Your task to perform on an android device: Open calendar and show me the third week of next month Image 0: 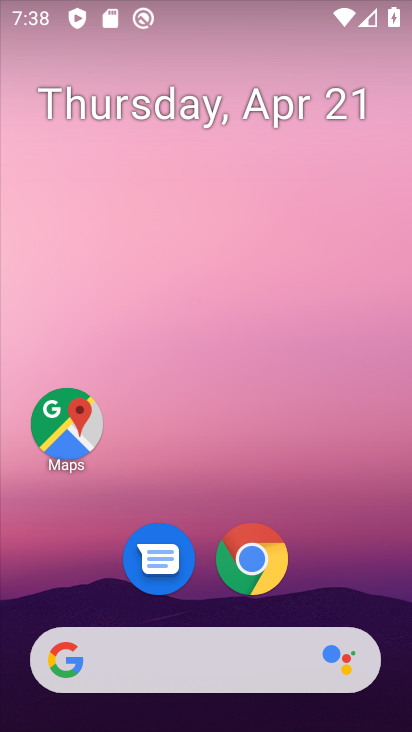
Step 0: click (171, 88)
Your task to perform on an android device: Open calendar and show me the third week of next month Image 1: 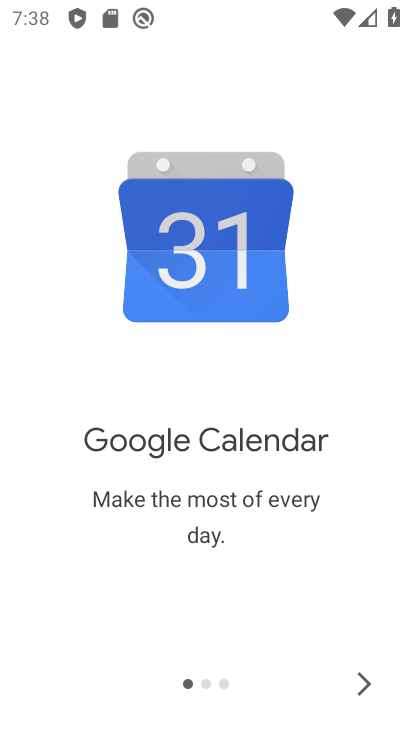
Step 1: click (370, 696)
Your task to perform on an android device: Open calendar and show me the third week of next month Image 2: 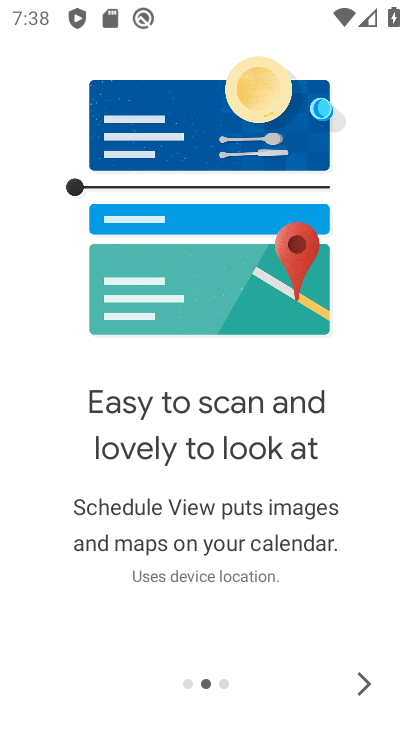
Step 2: click (370, 696)
Your task to perform on an android device: Open calendar and show me the third week of next month Image 3: 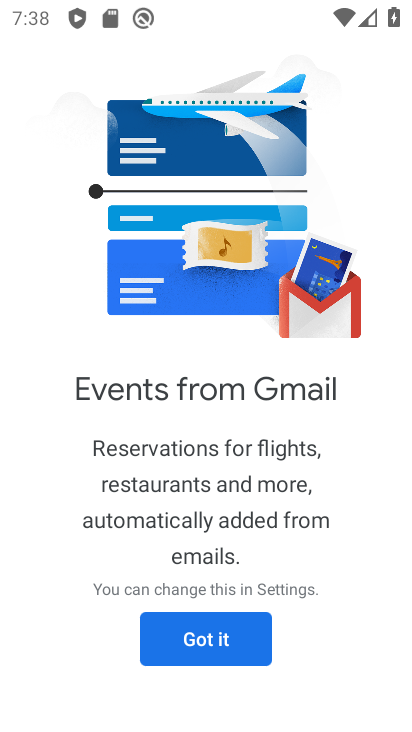
Step 3: click (213, 648)
Your task to perform on an android device: Open calendar and show me the third week of next month Image 4: 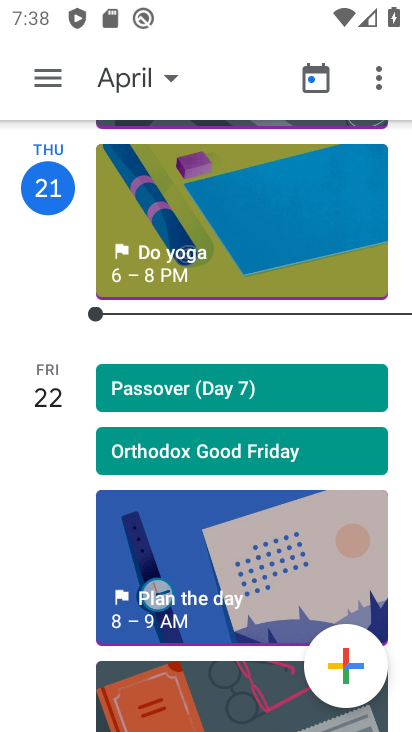
Step 4: click (171, 89)
Your task to perform on an android device: Open calendar and show me the third week of next month Image 5: 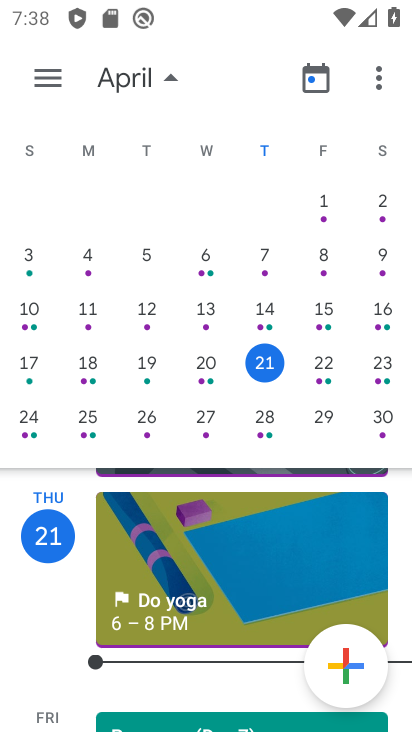
Step 5: drag from (349, 397) to (19, 419)
Your task to perform on an android device: Open calendar and show me the third week of next month Image 6: 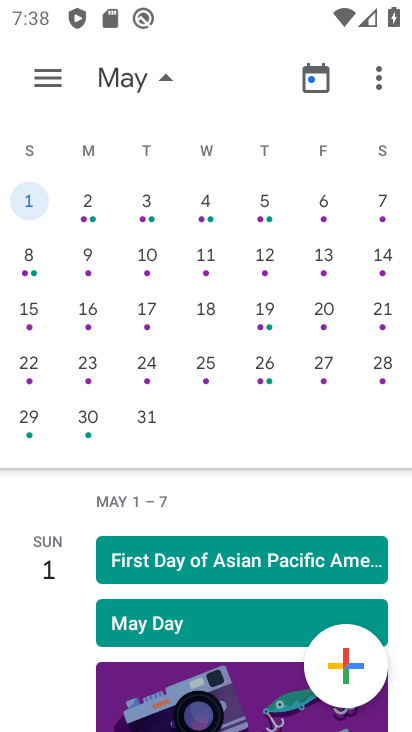
Step 6: click (142, 206)
Your task to perform on an android device: Open calendar and show me the third week of next month Image 7: 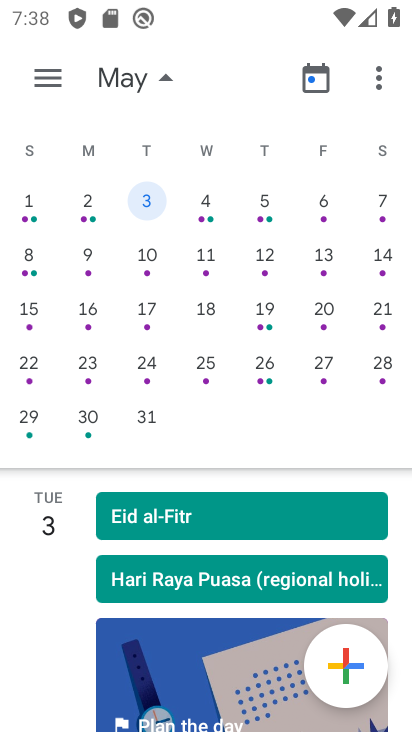
Step 7: task complete